Your task to perform on an android device: Check the weather Image 0: 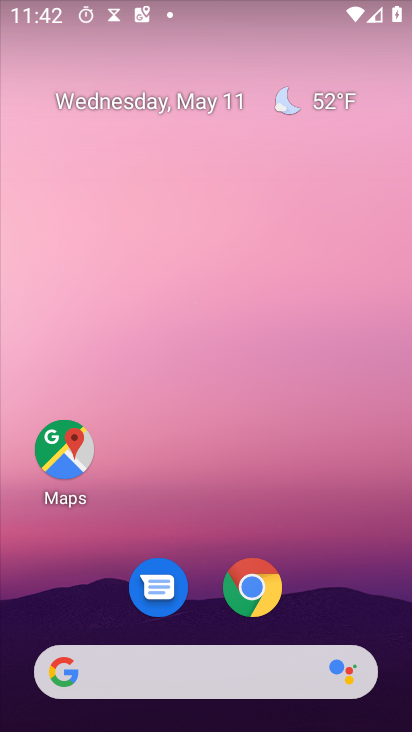
Step 0: drag from (245, 689) to (255, 320)
Your task to perform on an android device: Check the weather Image 1: 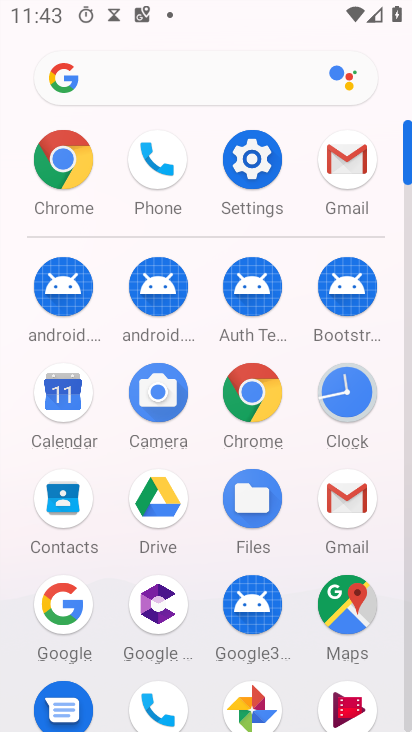
Step 1: click (114, 82)
Your task to perform on an android device: Check the weather Image 2: 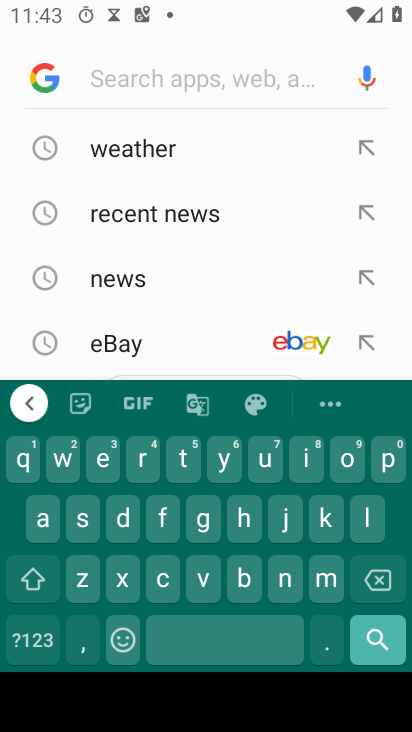
Step 2: click (176, 164)
Your task to perform on an android device: Check the weather Image 3: 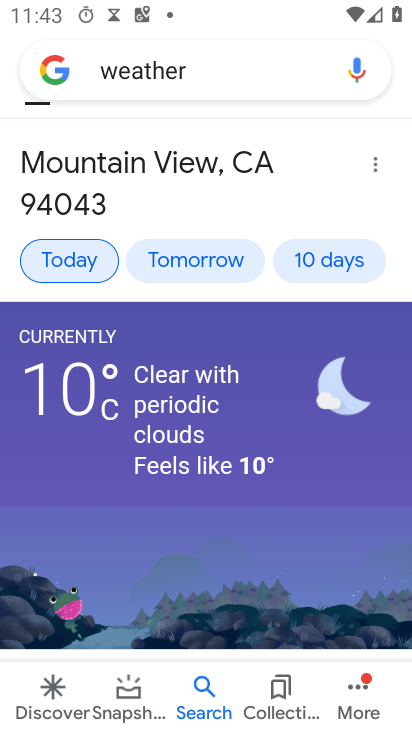
Step 3: task complete